Your task to perform on an android device: read, delete, or share a saved page in the chrome app Image 0: 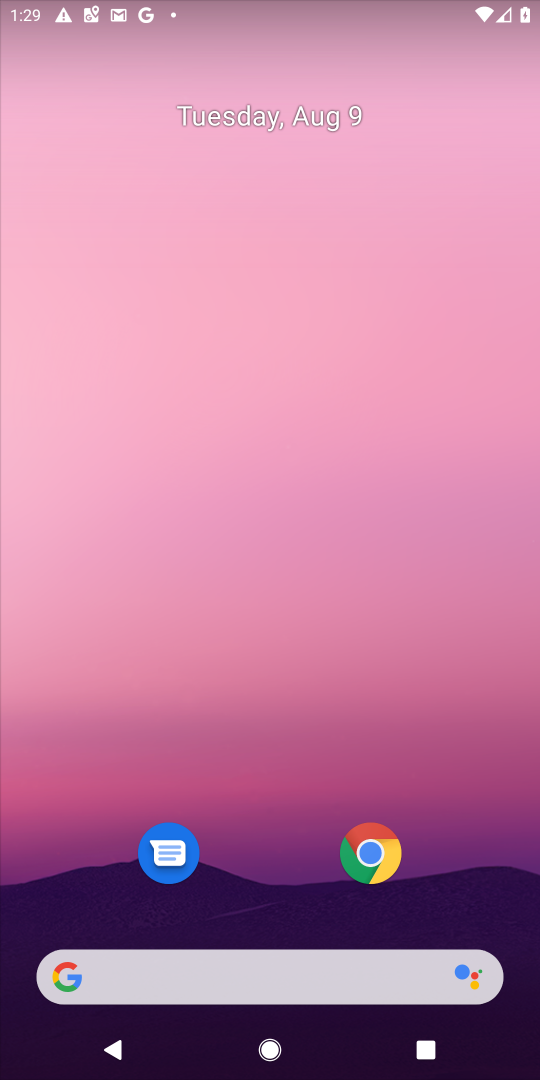
Step 0: press home button
Your task to perform on an android device: read, delete, or share a saved page in the chrome app Image 1: 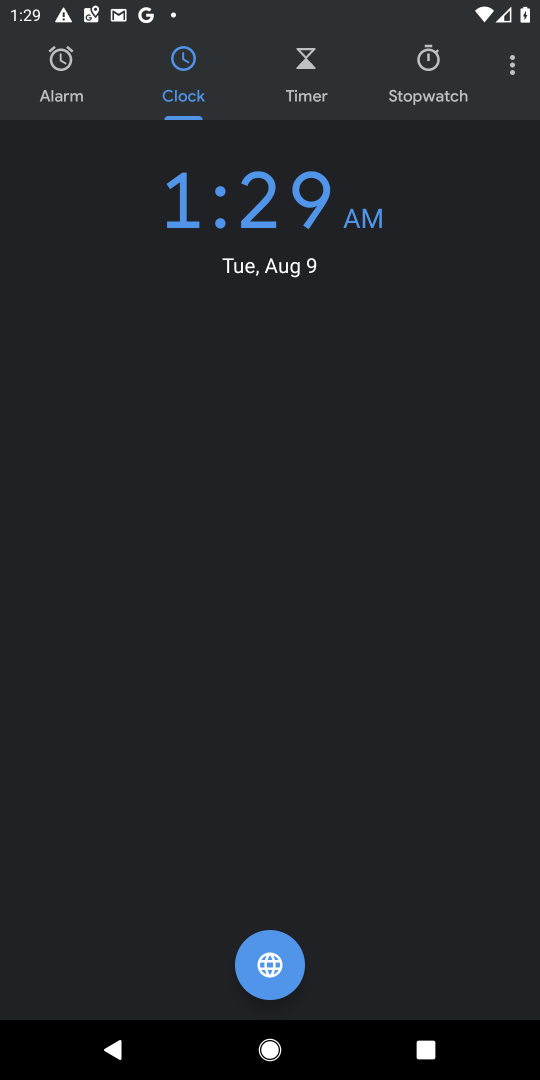
Step 1: drag from (287, 890) to (440, 68)
Your task to perform on an android device: read, delete, or share a saved page in the chrome app Image 2: 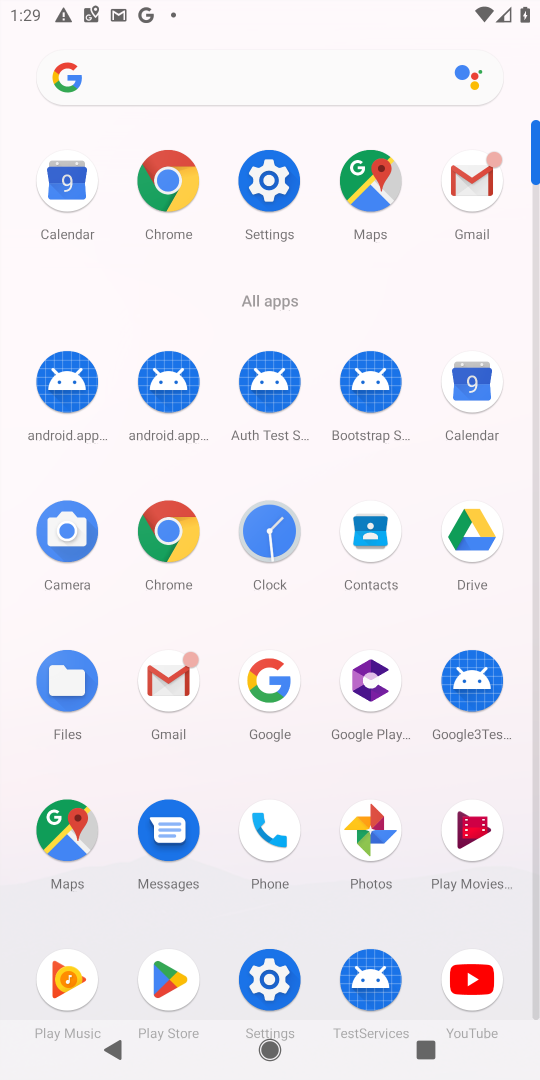
Step 2: click (161, 526)
Your task to perform on an android device: read, delete, or share a saved page in the chrome app Image 3: 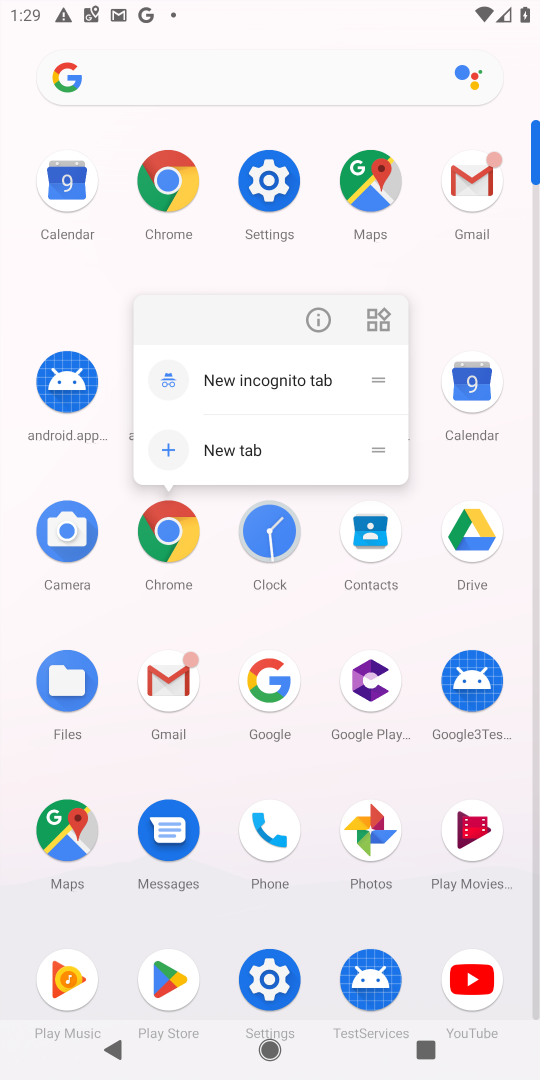
Step 3: click (166, 520)
Your task to perform on an android device: read, delete, or share a saved page in the chrome app Image 4: 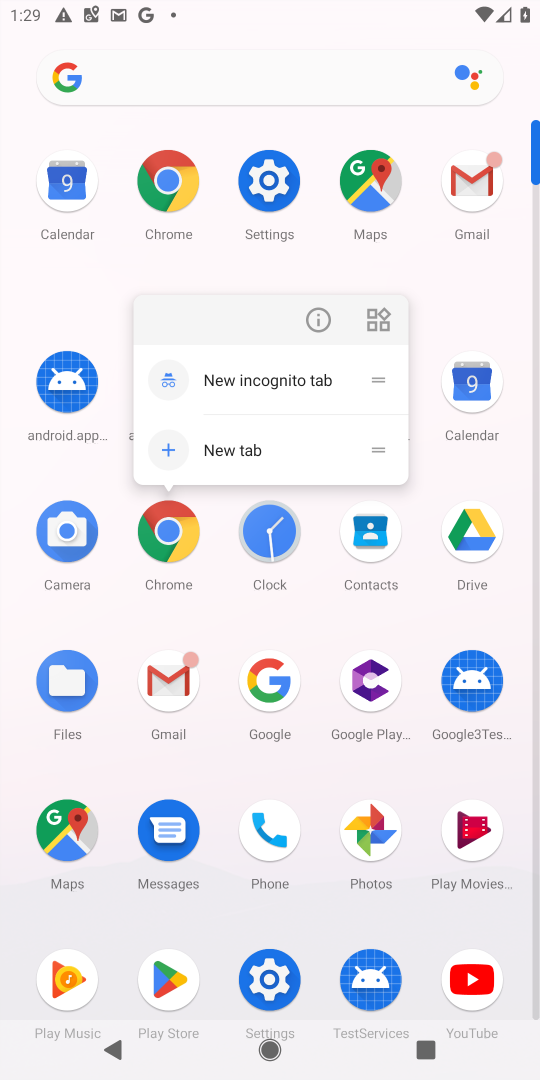
Step 4: click (166, 520)
Your task to perform on an android device: read, delete, or share a saved page in the chrome app Image 5: 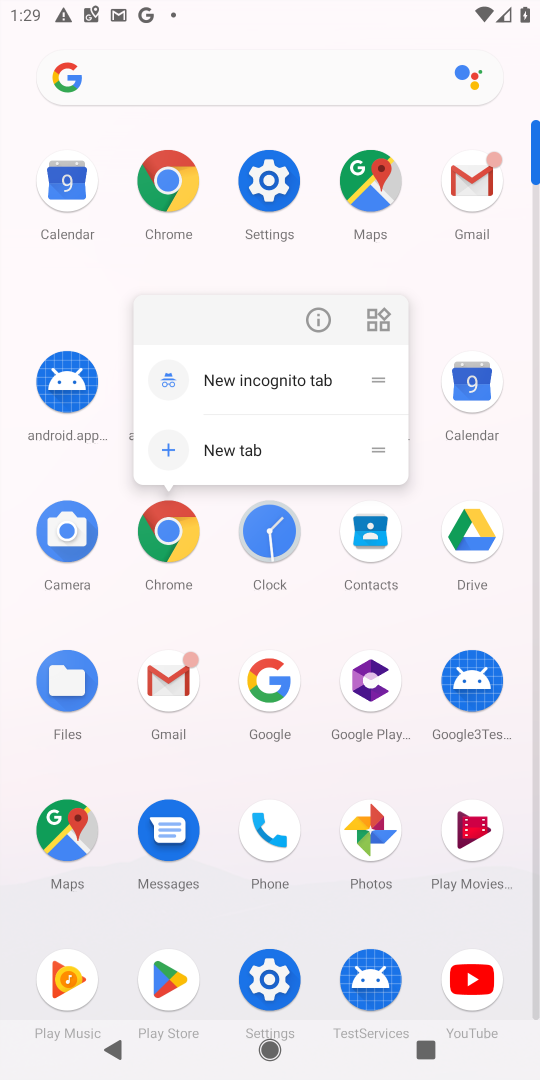
Step 5: click (165, 517)
Your task to perform on an android device: read, delete, or share a saved page in the chrome app Image 6: 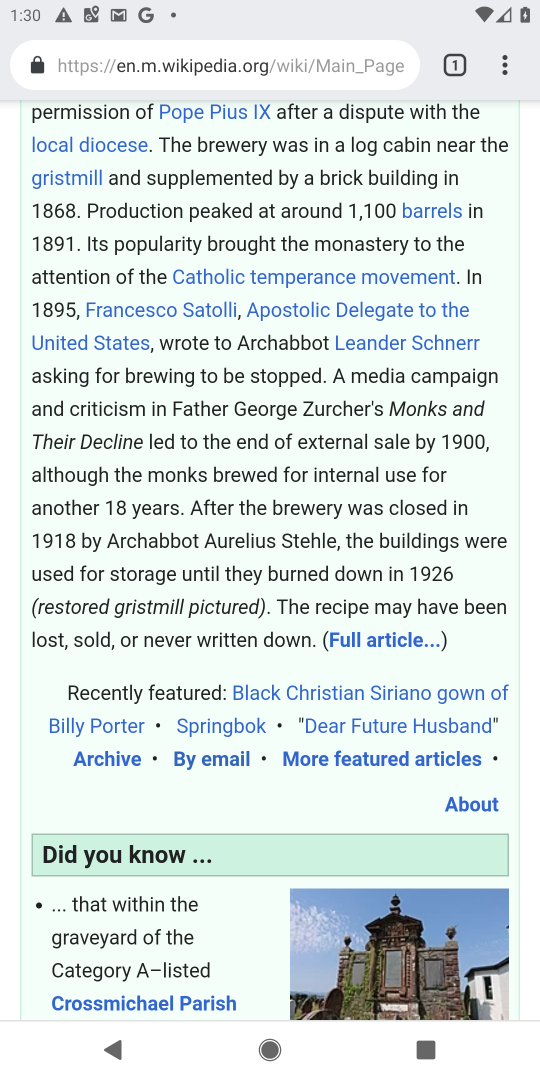
Step 6: click (506, 58)
Your task to perform on an android device: read, delete, or share a saved page in the chrome app Image 7: 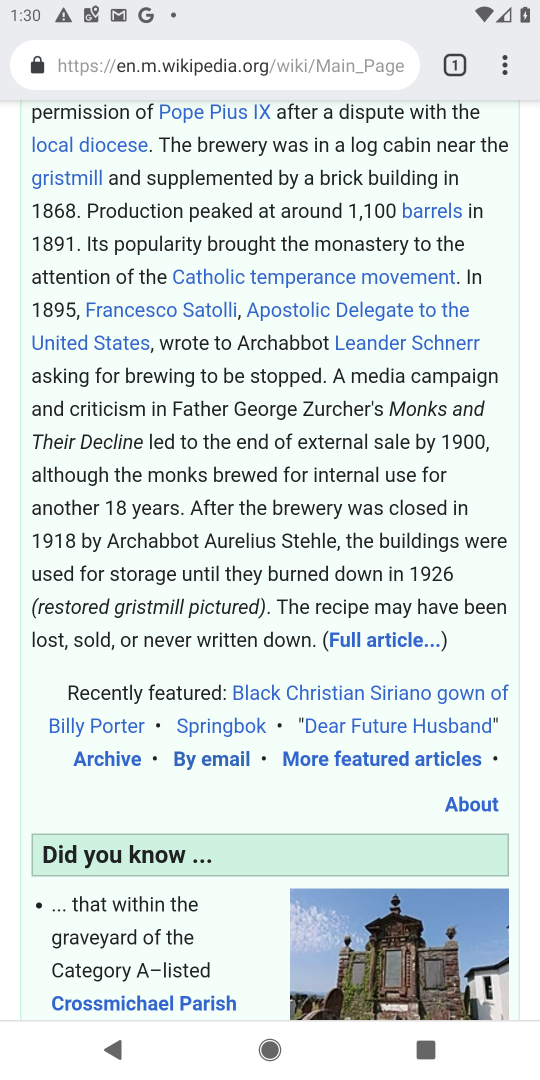
Step 7: click (500, 78)
Your task to perform on an android device: read, delete, or share a saved page in the chrome app Image 8: 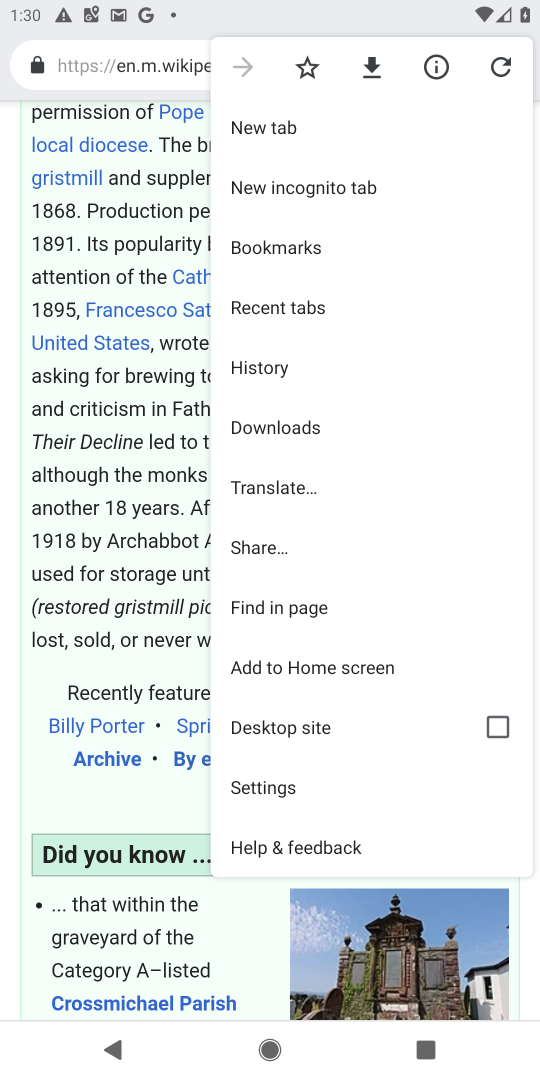
Step 8: click (311, 410)
Your task to perform on an android device: read, delete, or share a saved page in the chrome app Image 9: 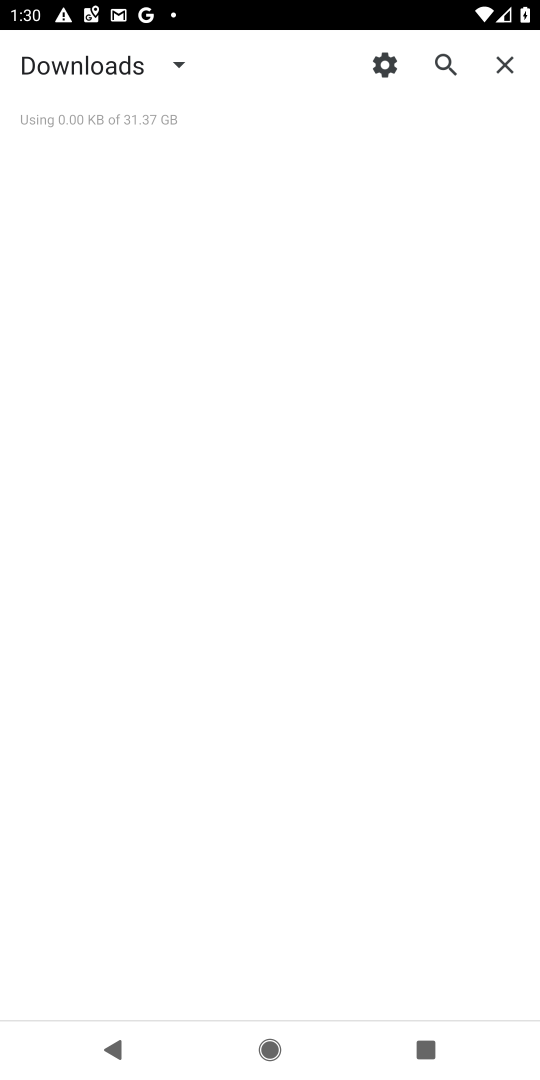
Step 9: task complete